Your task to perform on an android device: Open settings Image 0: 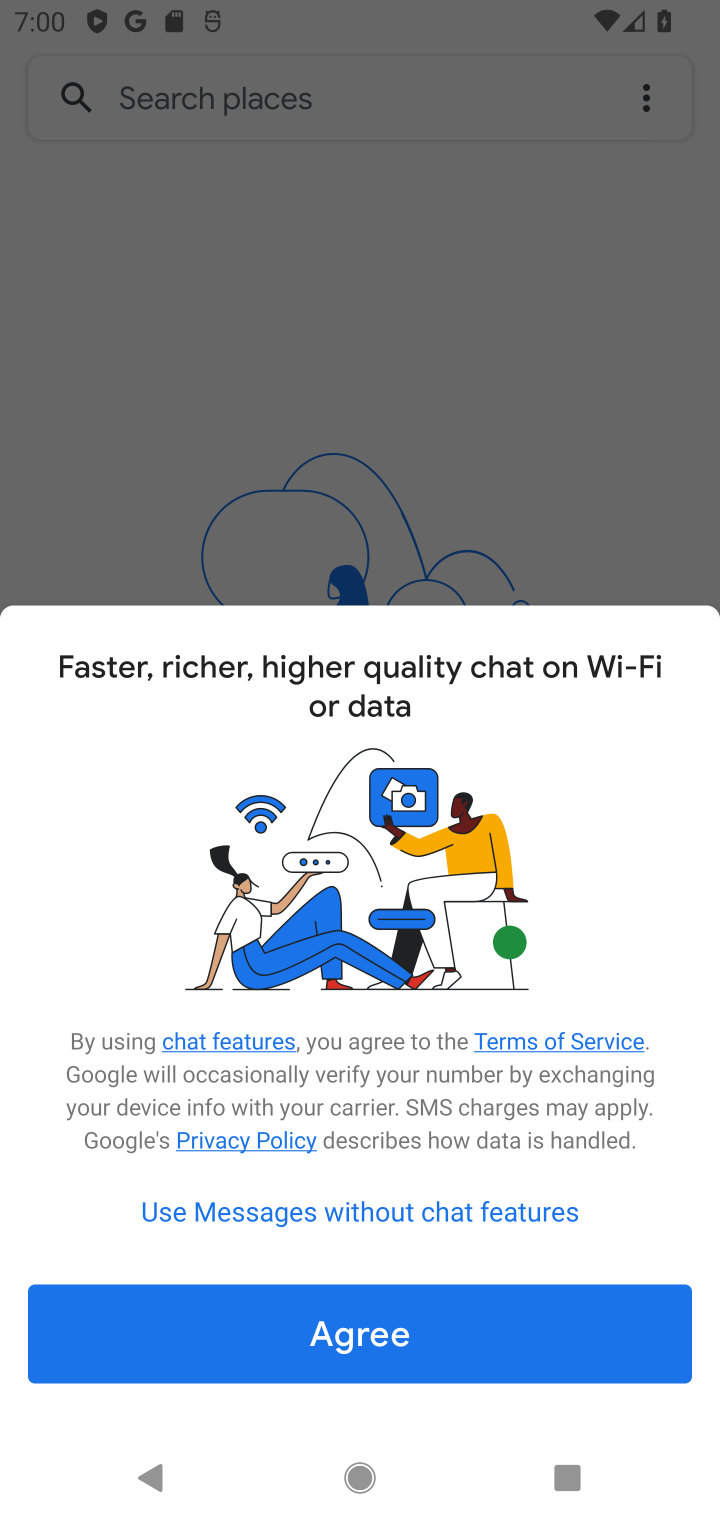
Step 0: press home button
Your task to perform on an android device: Open settings Image 1: 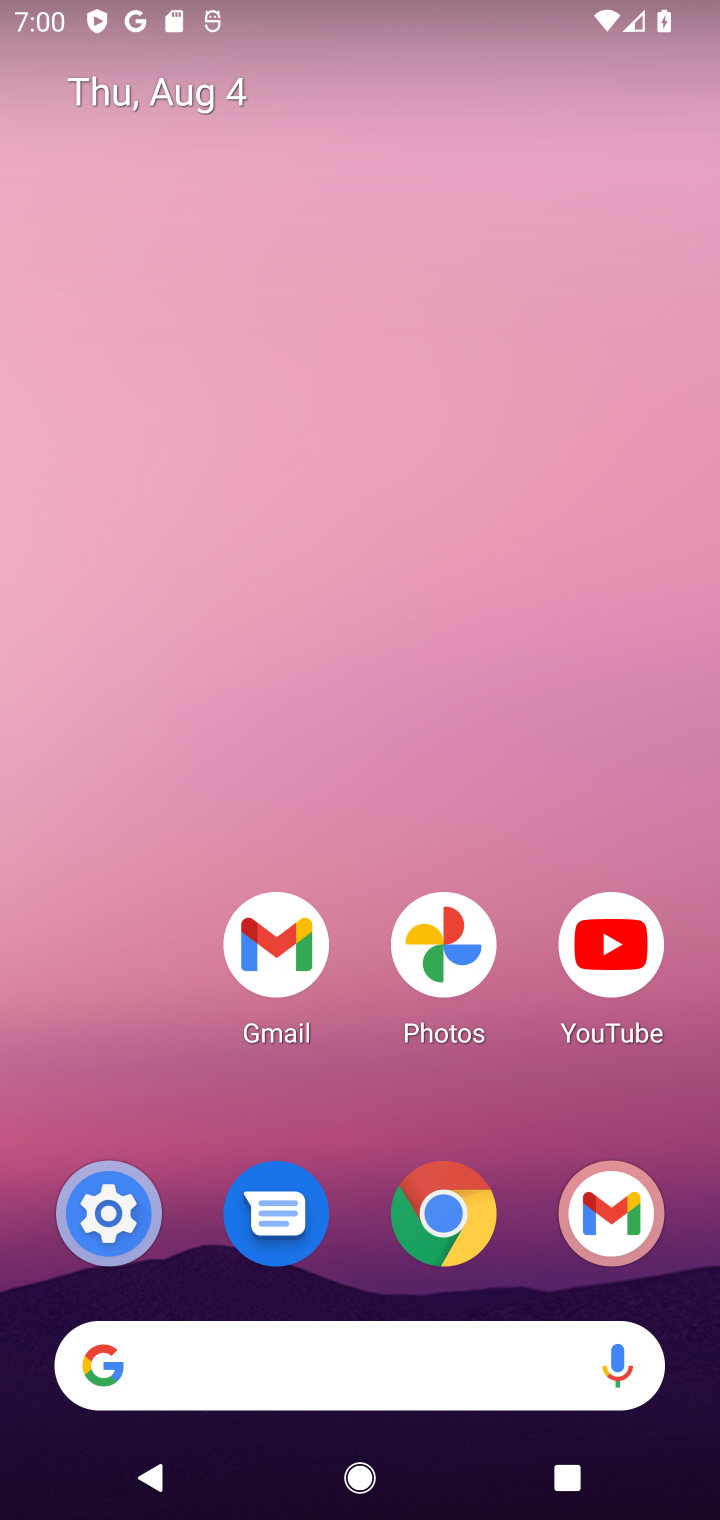
Step 1: click (105, 1204)
Your task to perform on an android device: Open settings Image 2: 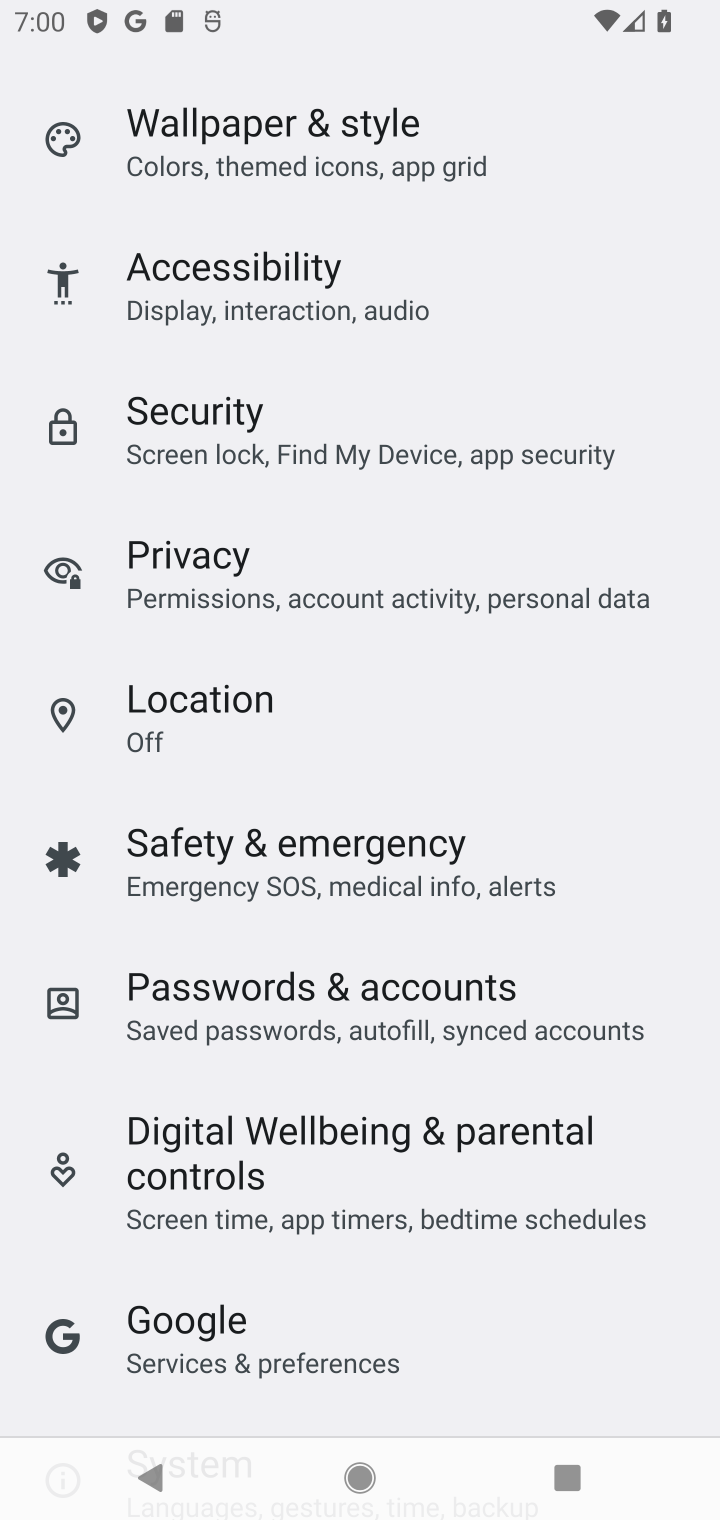
Step 2: task complete